Your task to perform on an android device: change your default location settings in chrome Image 0: 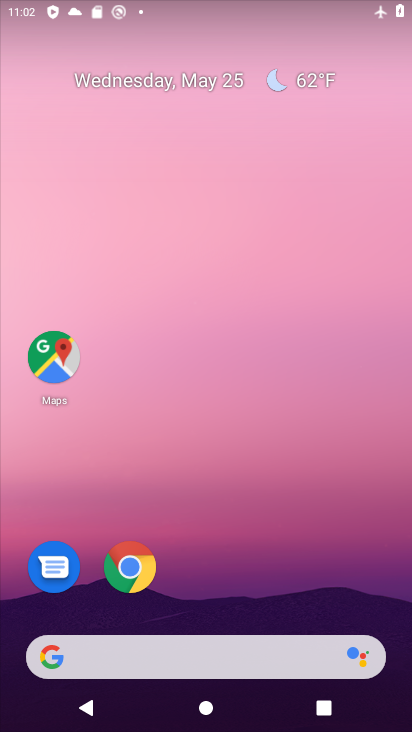
Step 0: drag from (362, 608) to (247, 2)
Your task to perform on an android device: change your default location settings in chrome Image 1: 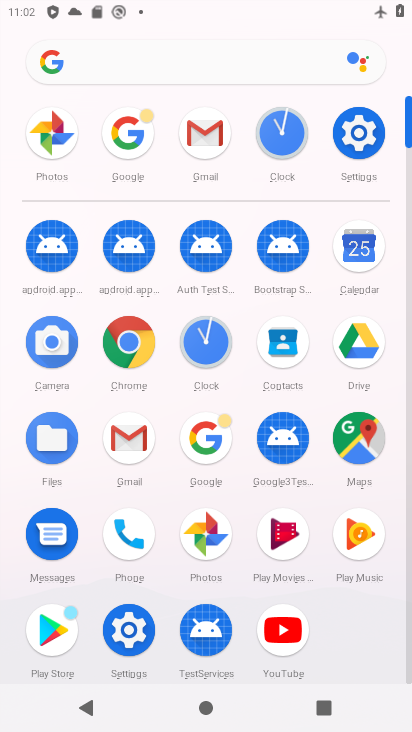
Step 1: click (116, 330)
Your task to perform on an android device: change your default location settings in chrome Image 2: 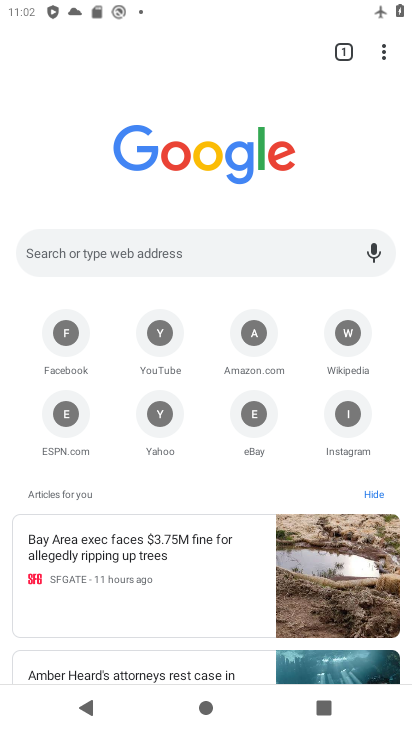
Step 2: click (386, 49)
Your task to perform on an android device: change your default location settings in chrome Image 3: 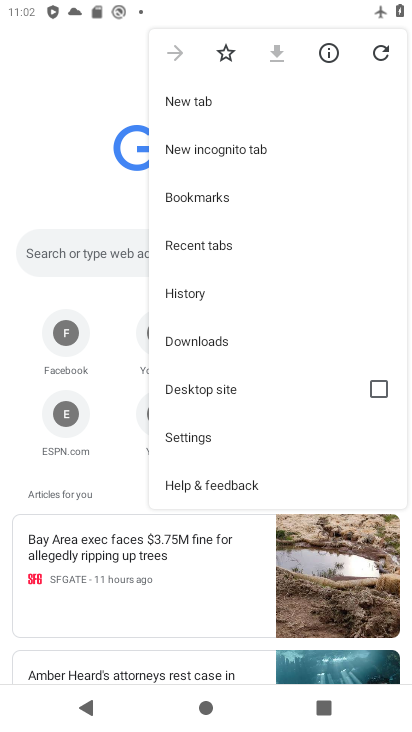
Step 3: click (227, 432)
Your task to perform on an android device: change your default location settings in chrome Image 4: 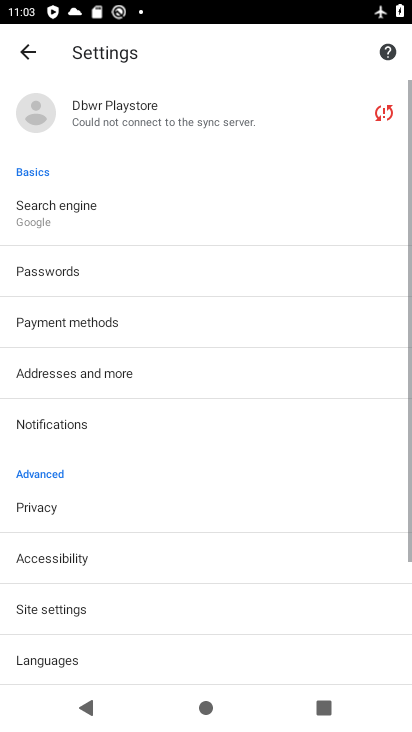
Step 4: click (59, 204)
Your task to perform on an android device: change your default location settings in chrome Image 5: 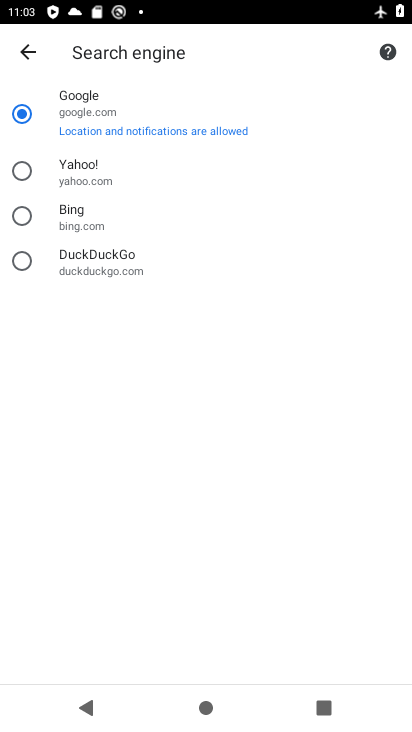
Step 5: click (56, 221)
Your task to perform on an android device: change your default location settings in chrome Image 6: 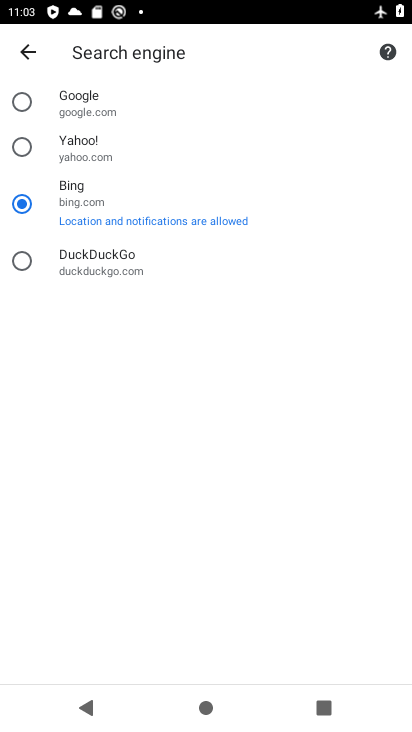
Step 6: task complete